Your task to perform on an android device: Open Amazon Image 0: 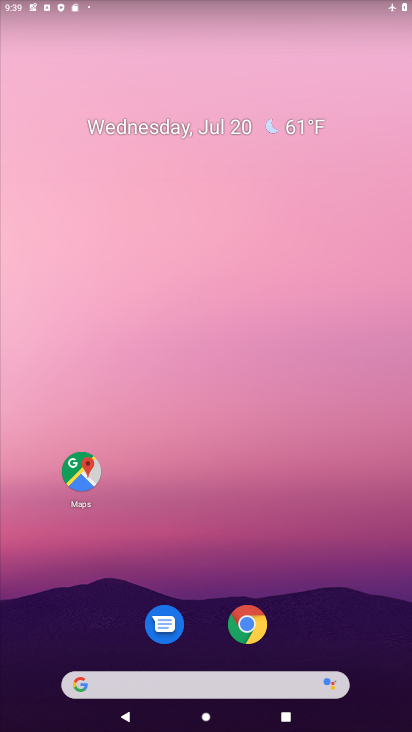
Step 0: click (253, 633)
Your task to perform on an android device: Open Amazon Image 1: 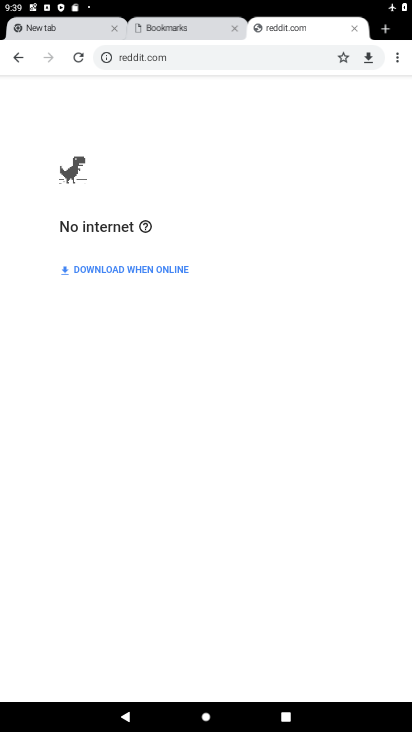
Step 1: click (380, 27)
Your task to perform on an android device: Open Amazon Image 2: 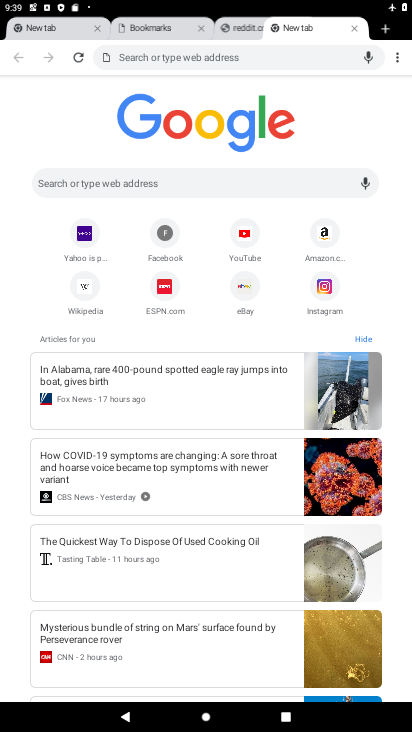
Step 2: click (322, 241)
Your task to perform on an android device: Open Amazon Image 3: 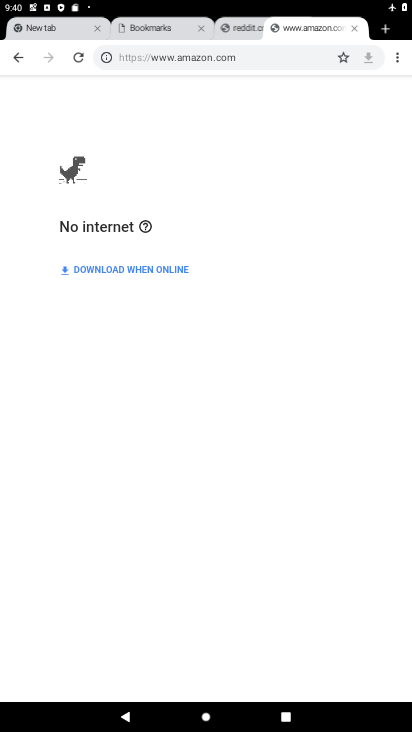
Step 3: task complete